Your task to perform on an android device: Turn off the flashlight Image 0: 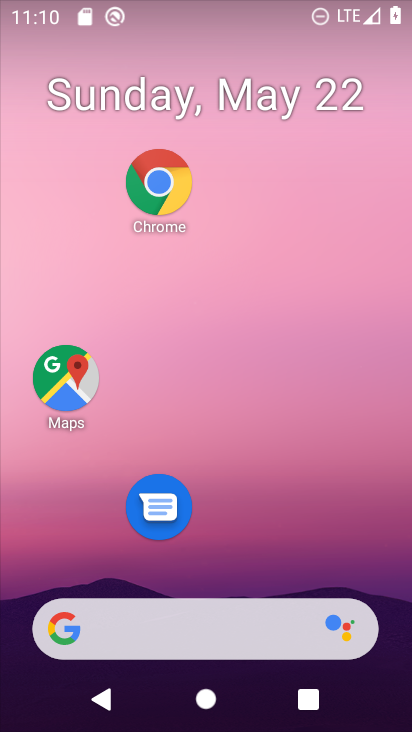
Step 0: drag from (307, 83) to (299, 718)
Your task to perform on an android device: Turn off the flashlight Image 1: 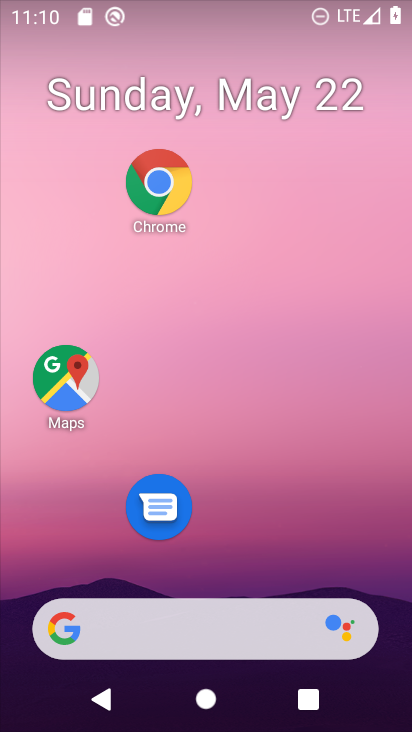
Step 1: task complete